Your task to perform on an android device: Open Chrome and go to settings Image 0: 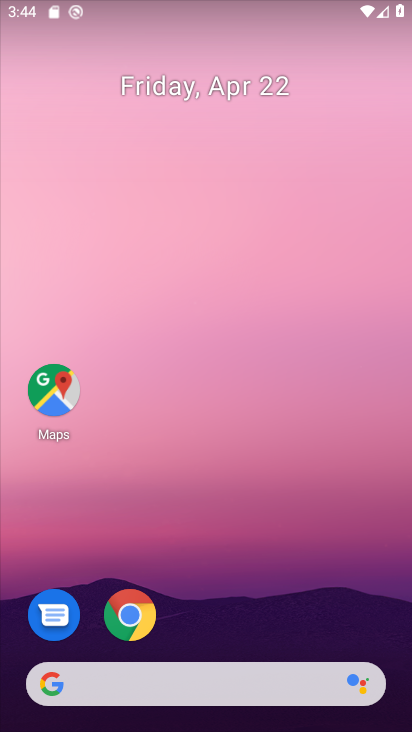
Step 0: click (137, 616)
Your task to perform on an android device: Open Chrome and go to settings Image 1: 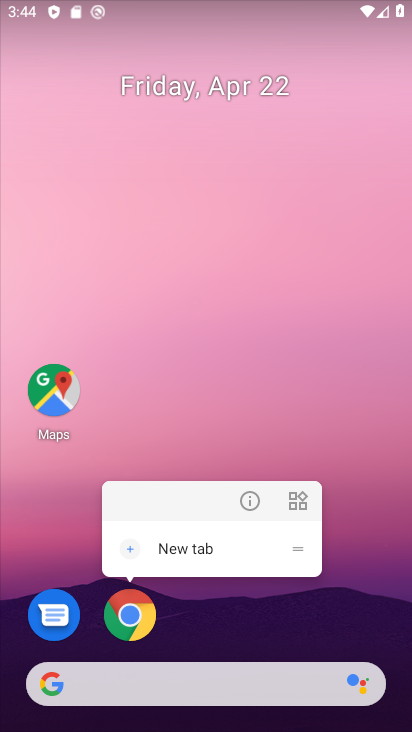
Step 1: click (136, 622)
Your task to perform on an android device: Open Chrome and go to settings Image 2: 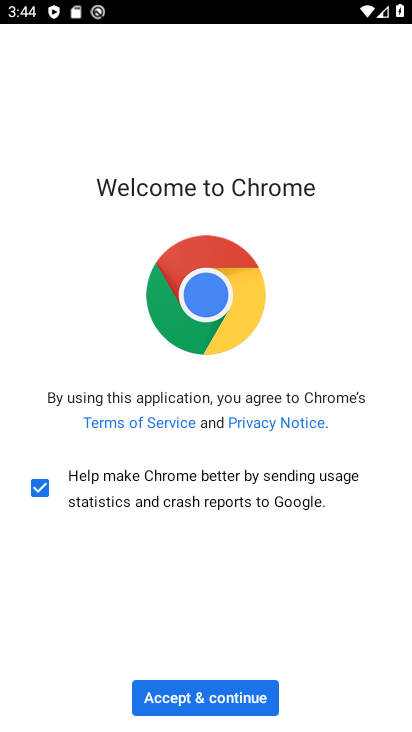
Step 2: click (236, 693)
Your task to perform on an android device: Open Chrome and go to settings Image 3: 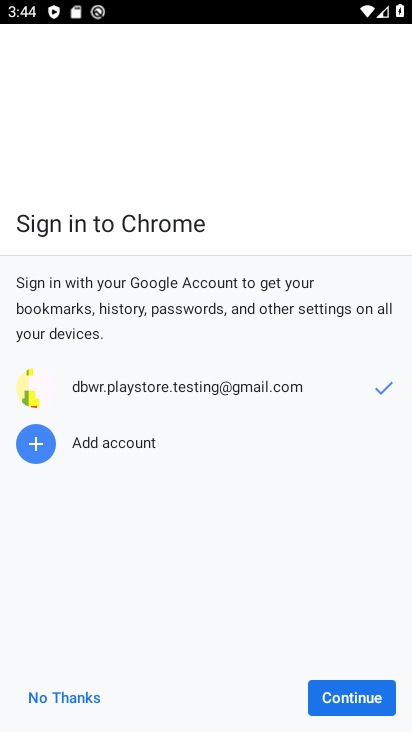
Step 3: click (378, 695)
Your task to perform on an android device: Open Chrome and go to settings Image 4: 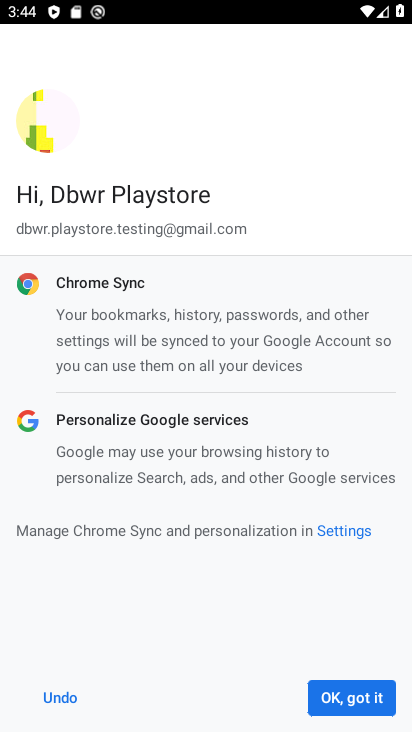
Step 4: click (370, 697)
Your task to perform on an android device: Open Chrome and go to settings Image 5: 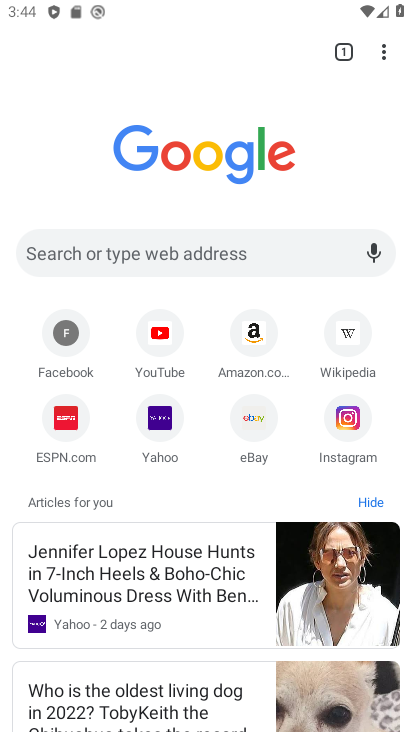
Step 5: task complete